Your task to perform on an android device: Is it going to rain tomorrow? Image 0: 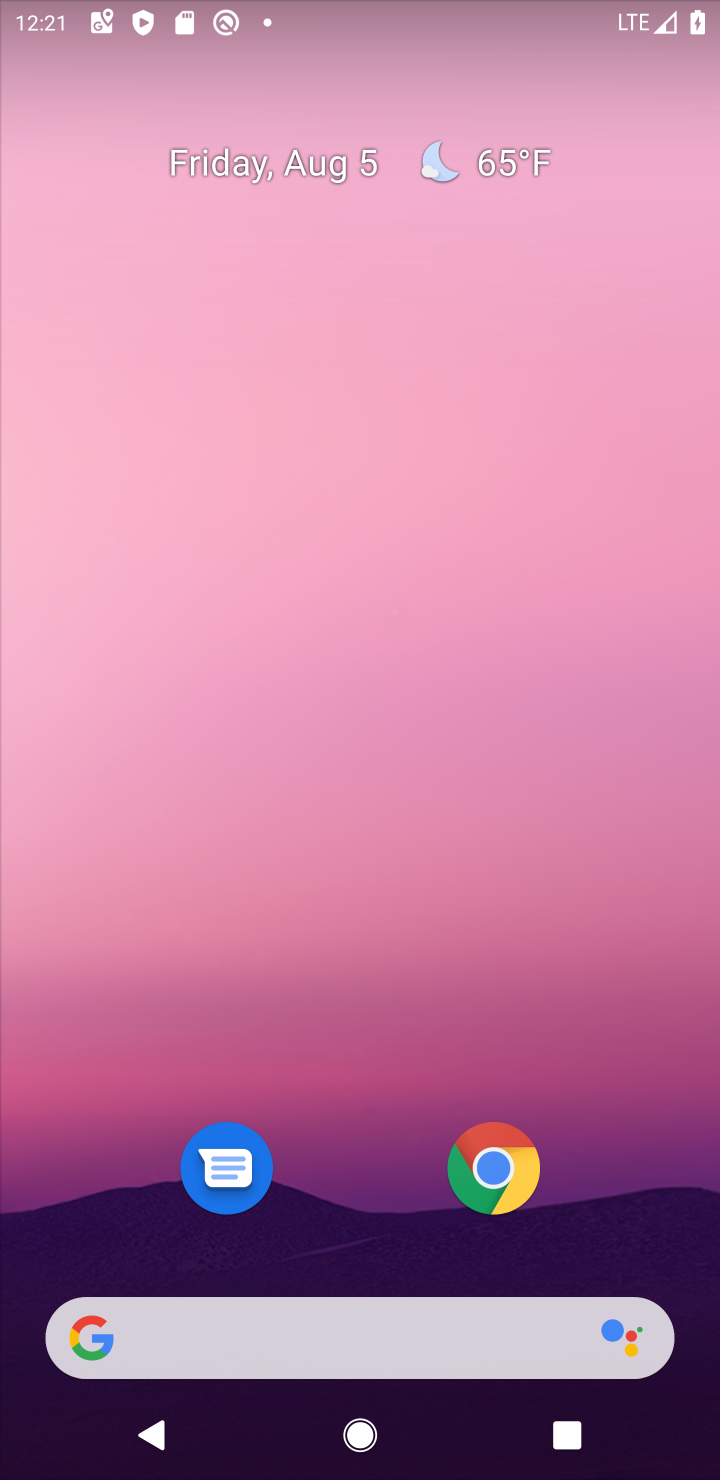
Step 0: drag from (590, 808) to (386, 84)
Your task to perform on an android device: Is it going to rain tomorrow? Image 1: 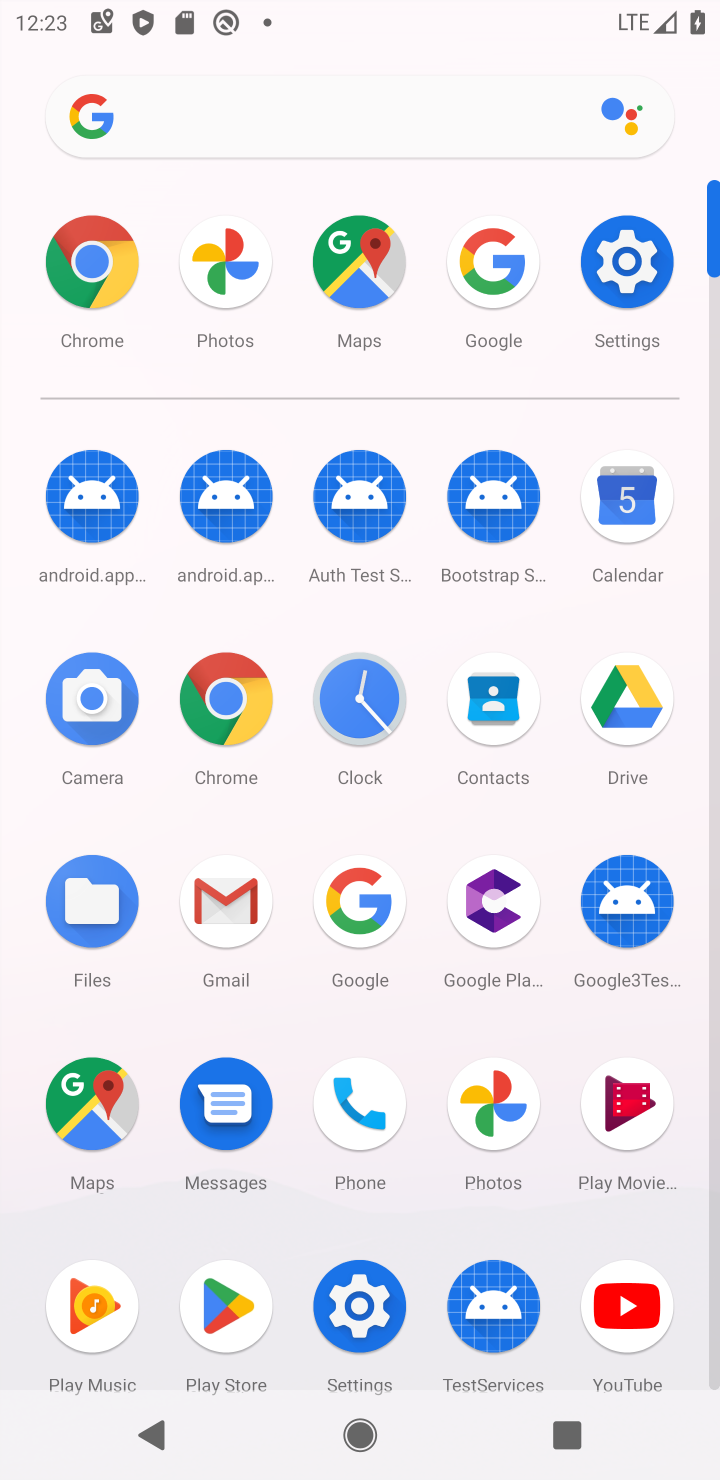
Step 1: click (407, 876)
Your task to perform on an android device: Is it going to rain tomorrow? Image 2: 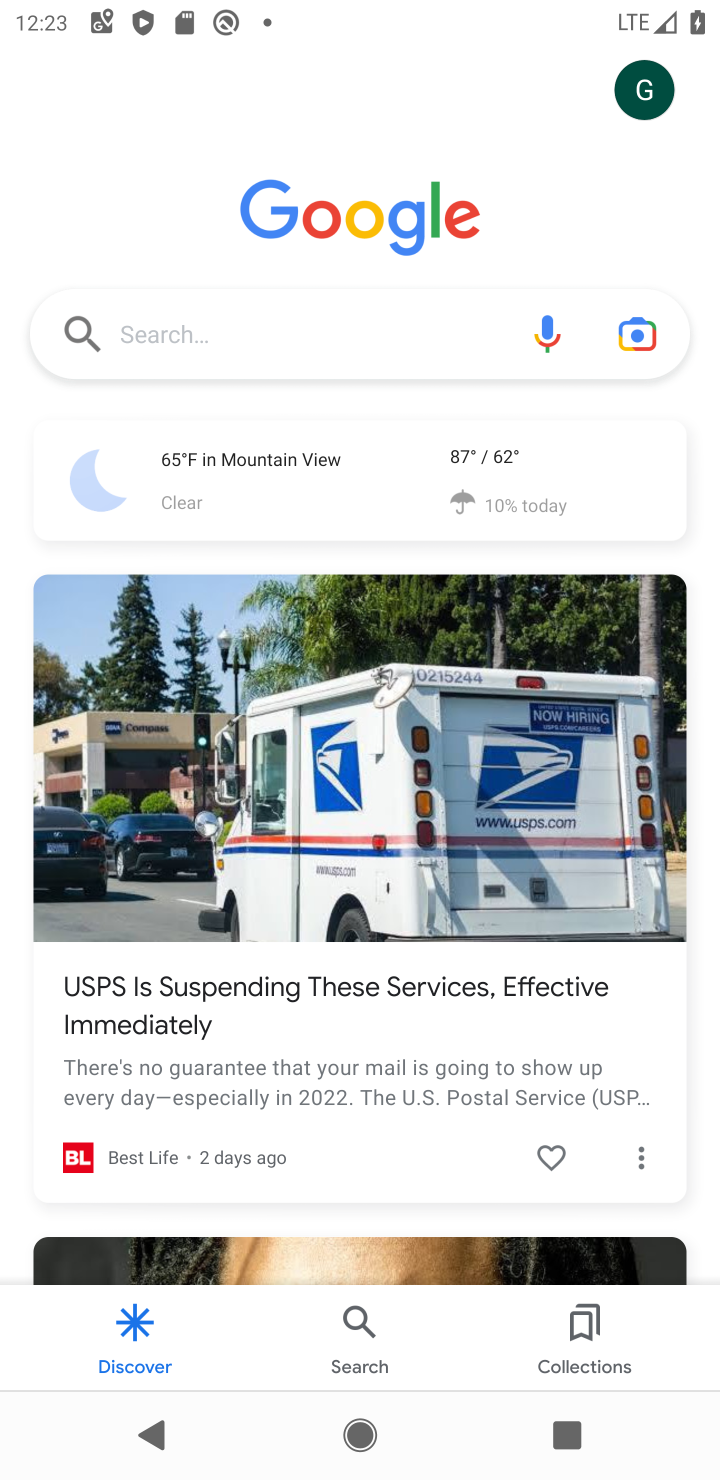
Step 2: click (165, 302)
Your task to perform on an android device: Is it going to rain tomorrow? Image 3: 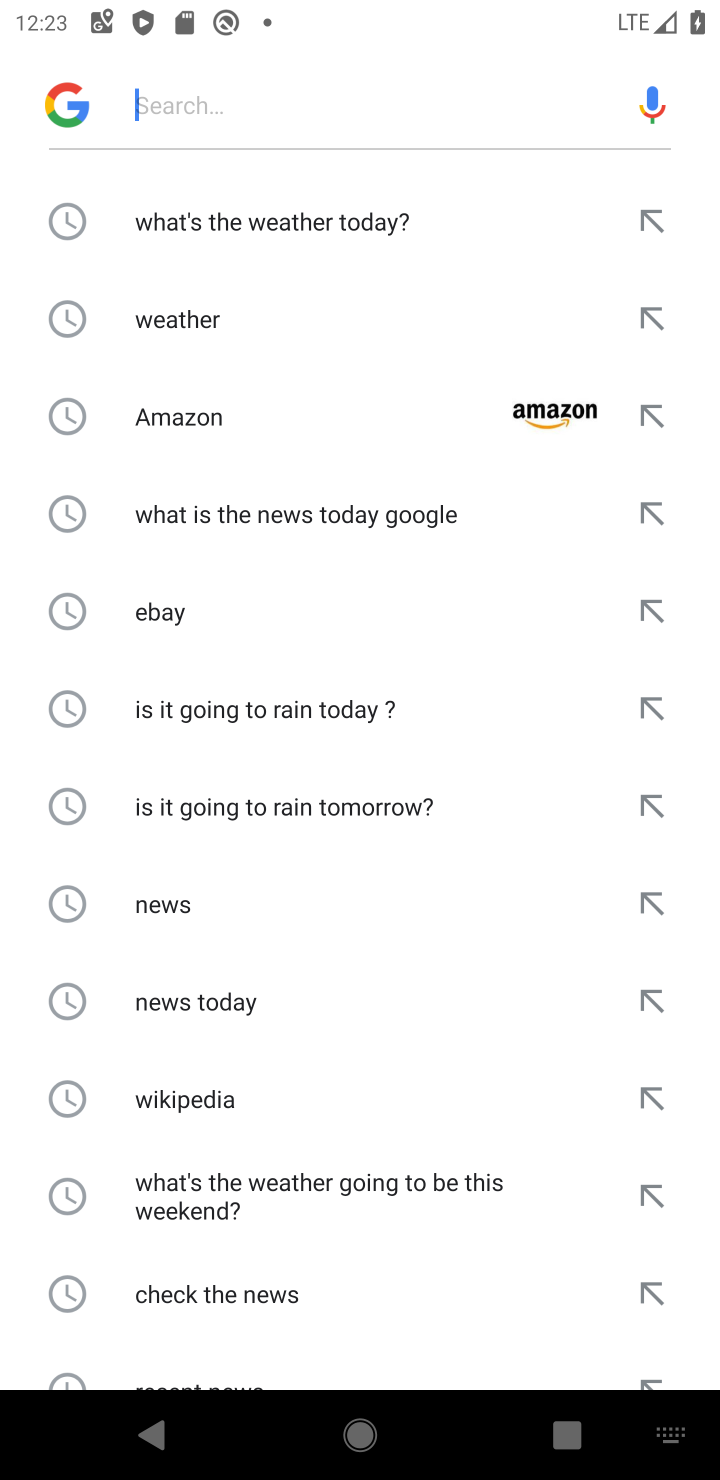
Step 3: click (390, 824)
Your task to perform on an android device: Is it going to rain tomorrow? Image 4: 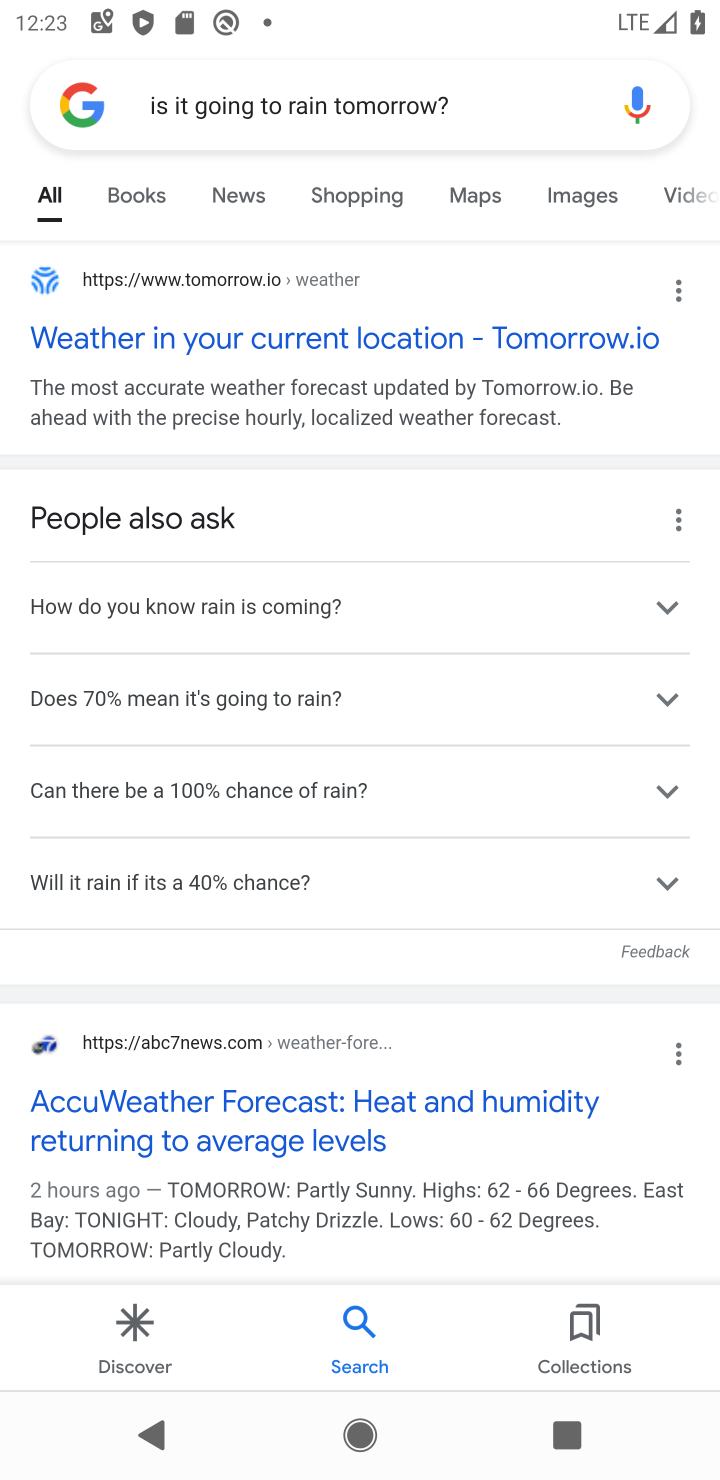
Step 4: task complete